Your task to perform on an android device: Open Yahoo.com Image 0: 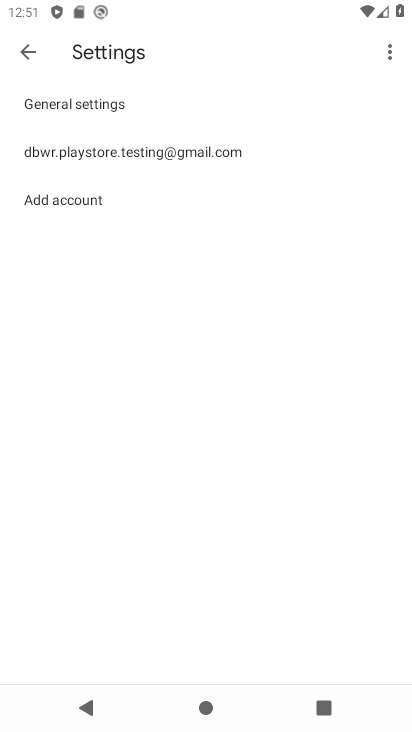
Step 0: press home button
Your task to perform on an android device: Open Yahoo.com Image 1: 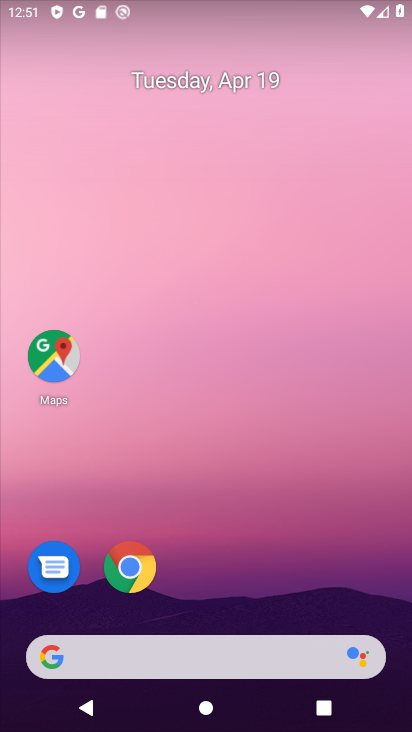
Step 1: click (145, 561)
Your task to perform on an android device: Open Yahoo.com Image 2: 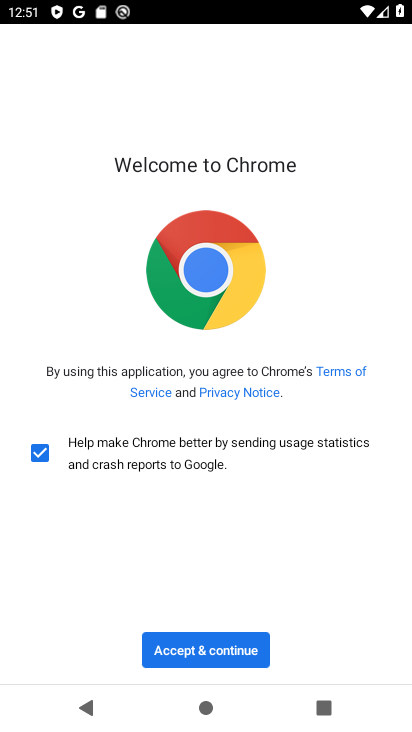
Step 2: click (216, 648)
Your task to perform on an android device: Open Yahoo.com Image 3: 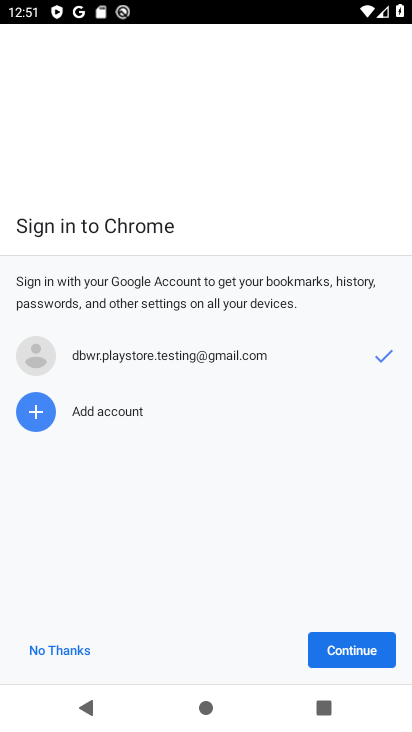
Step 3: click (374, 657)
Your task to perform on an android device: Open Yahoo.com Image 4: 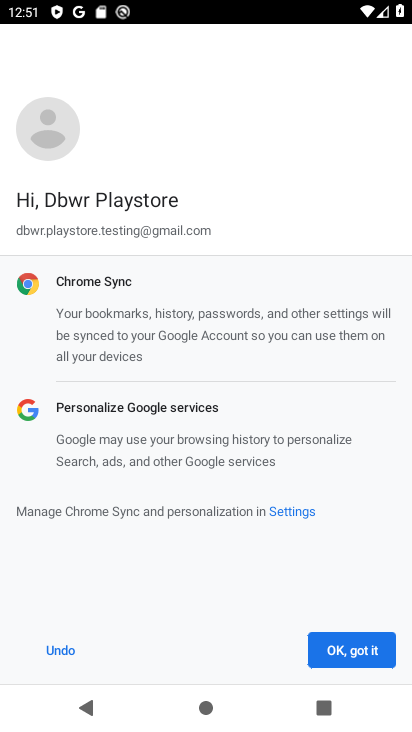
Step 4: click (377, 652)
Your task to perform on an android device: Open Yahoo.com Image 5: 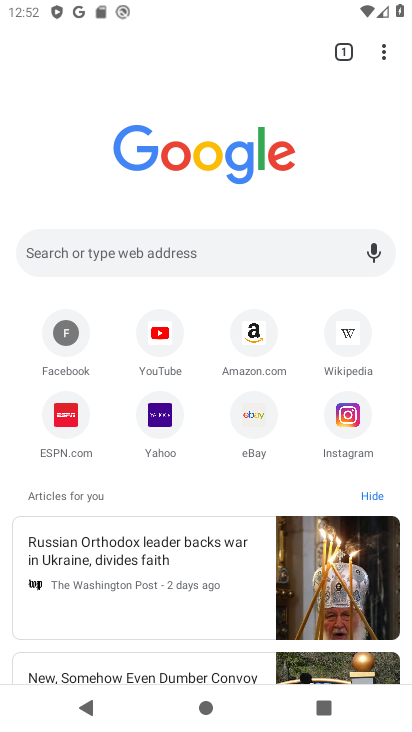
Step 5: click (169, 423)
Your task to perform on an android device: Open Yahoo.com Image 6: 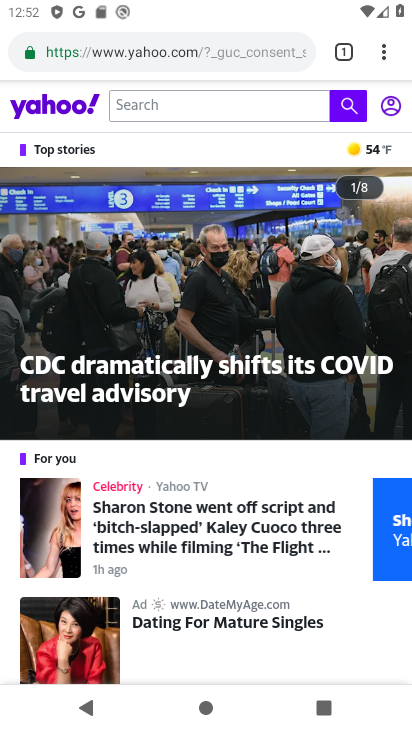
Step 6: task complete